Your task to perform on an android device: open the mobile data screen to see how much data has been used Image 0: 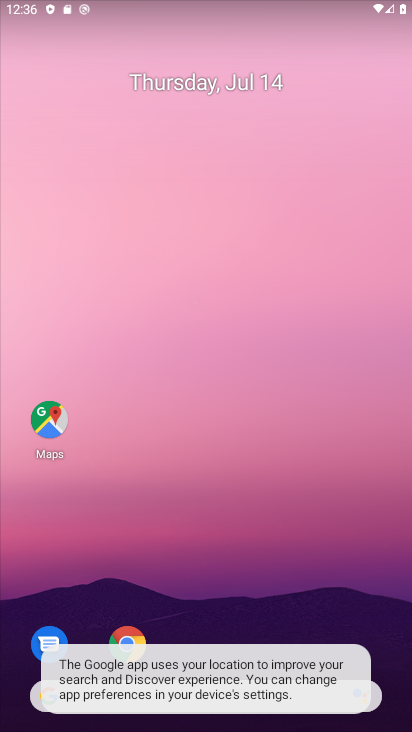
Step 0: drag from (250, 577) to (259, 198)
Your task to perform on an android device: open the mobile data screen to see how much data has been used Image 1: 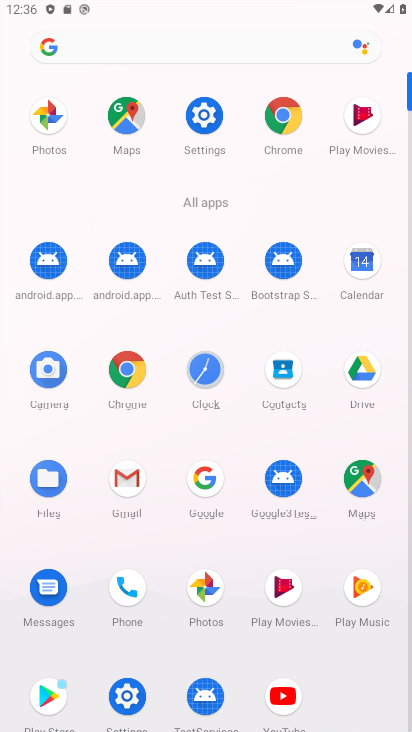
Step 1: click (201, 121)
Your task to perform on an android device: open the mobile data screen to see how much data has been used Image 2: 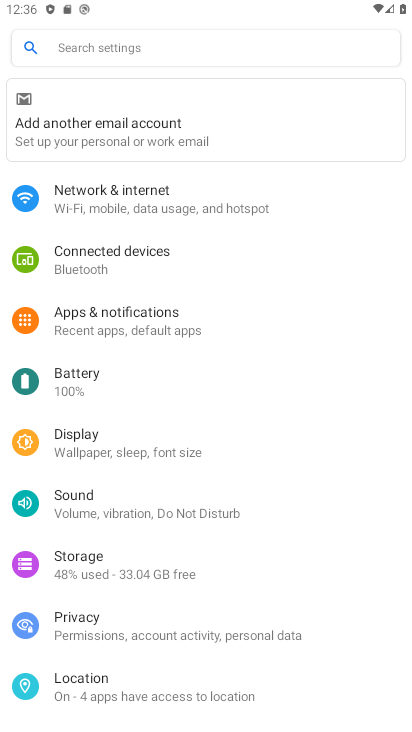
Step 2: click (165, 208)
Your task to perform on an android device: open the mobile data screen to see how much data has been used Image 3: 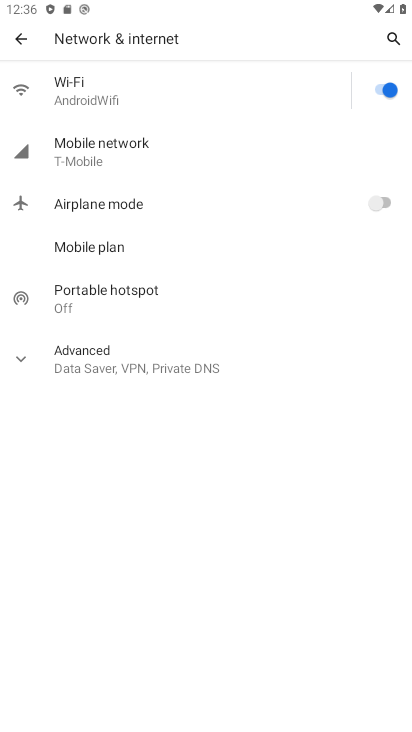
Step 3: click (110, 164)
Your task to perform on an android device: open the mobile data screen to see how much data has been used Image 4: 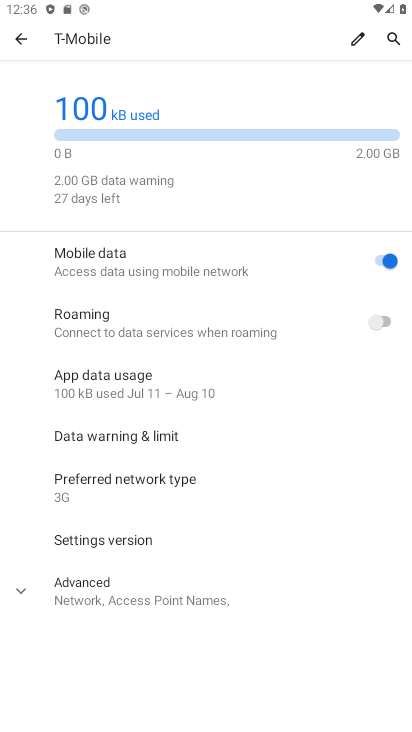
Step 4: task complete